Your task to perform on an android device: create a new album in the google photos Image 0: 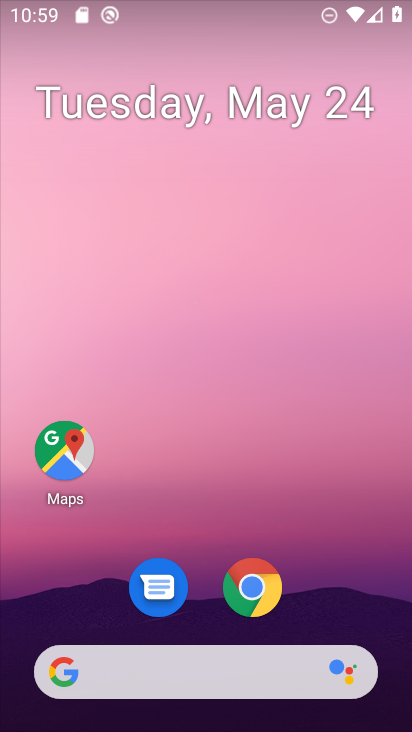
Step 0: press home button
Your task to perform on an android device: create a new album in the google photos Image 1: 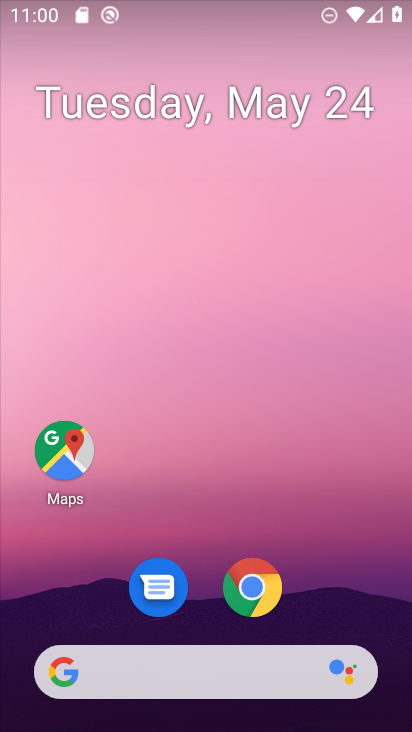
Step 1: drag from (355, 601) to (384, 87)
Your task to perform on an android device: create a new album in the google photos Image 2: 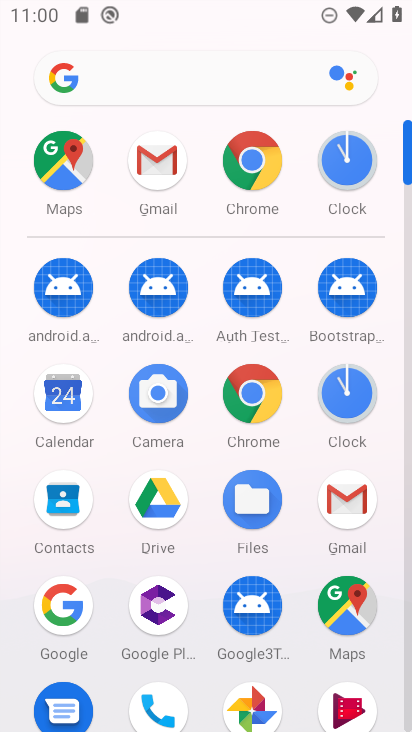
Step 2: click (248, 694)
Your task to perform on an android device: create a new album in the google photos Image 3: 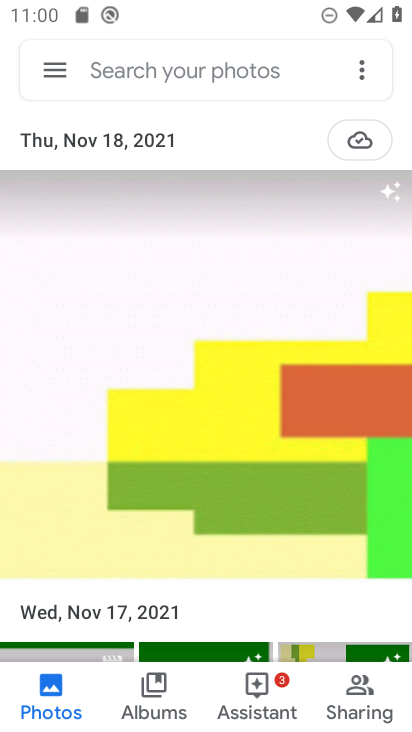
Step 3: click (187, 532)
Your task to perform on an android device: create a new album in the google photos Image 4: 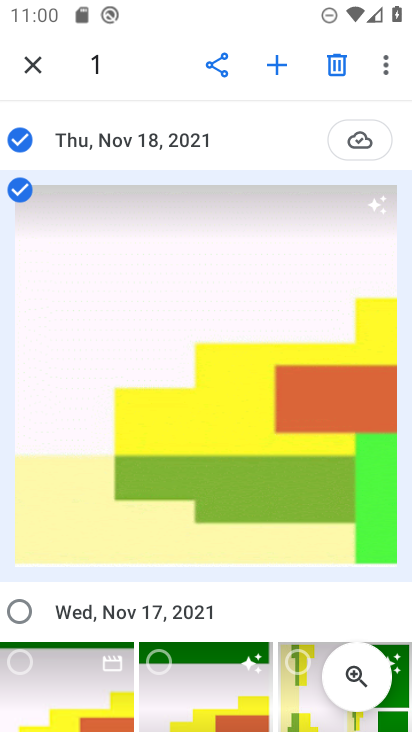
Step 4: click (199, 664)
Your task to perform on an android device: create a new album in the google photos Image 5: 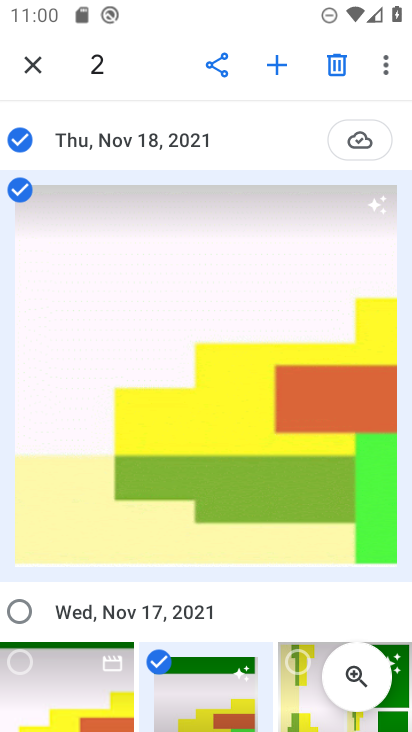
Step 5: click (79, 675)
Your task to perform on an android device: create a new album in the google photos Image 6: 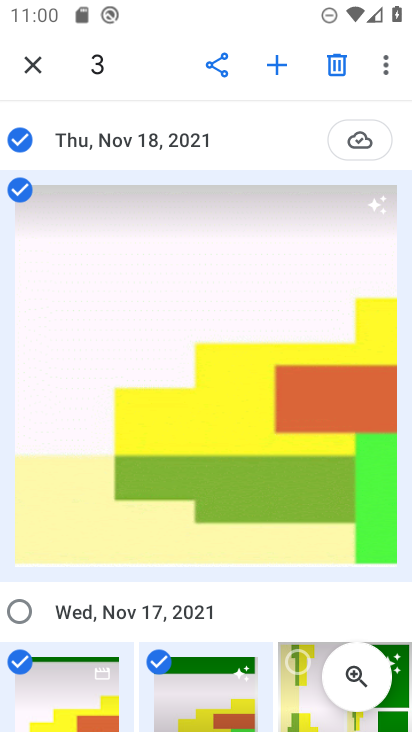
Step 6: click (274, 64)
Your task to perform on an android device: create a new album in the google photos Image 7: 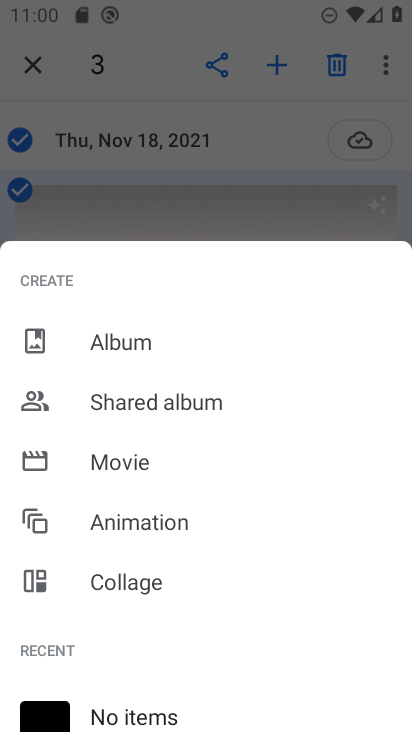
Step 7: click (115, 359)
Your task to perform on an android device: create a new album in the google photos Image 8: 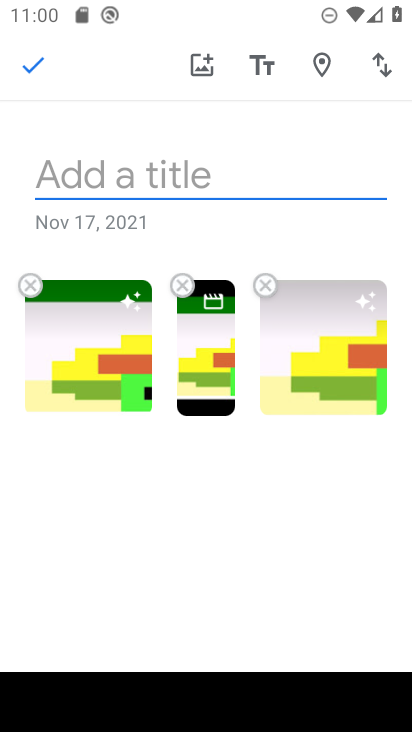
Step 8: type "mmn"
Your task to perform on an android device: create a new album in the google photos Image 9: 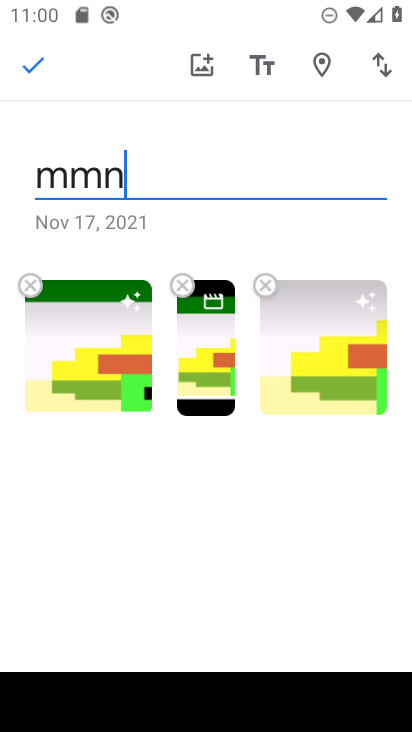
Step 9: click (20, 59)
Your task to perform on an android device: create a new album in the google photos Image 10: 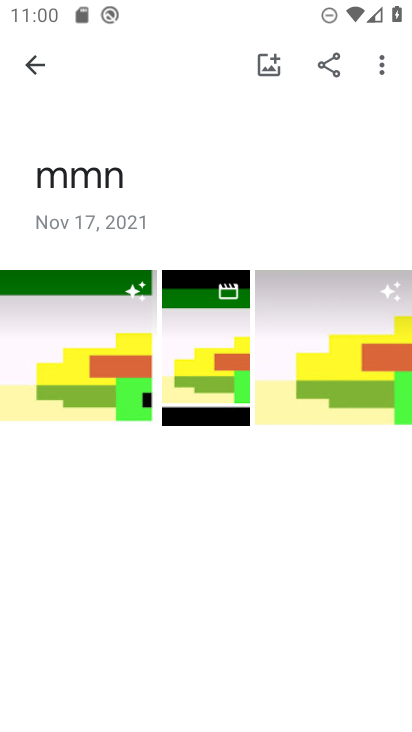
Step 10: task complete